Your task to perform on an android device: turn on airplane mode Image 0: 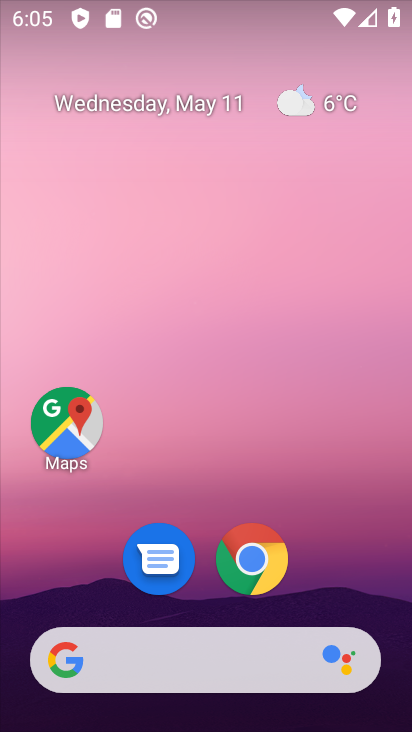
Step 0: drag from (335, 560) to (327, 105)
Your task to perform on an android device: turn on airplane mode Image 1: 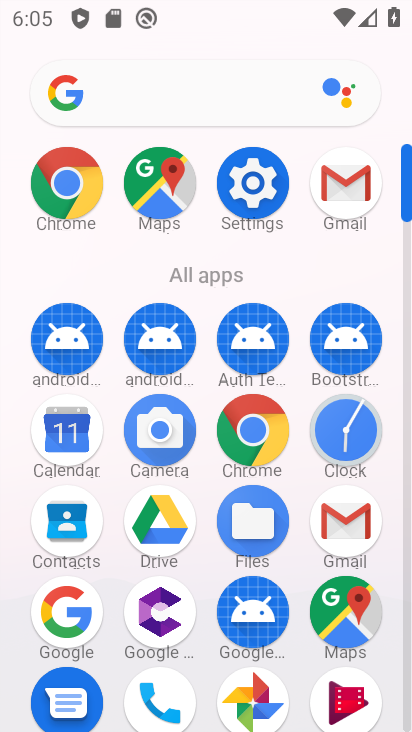
Step 1: drag from (347, 5) to (347, 519)
Your task to perform on an android device: turn on airplane mode Image 2: 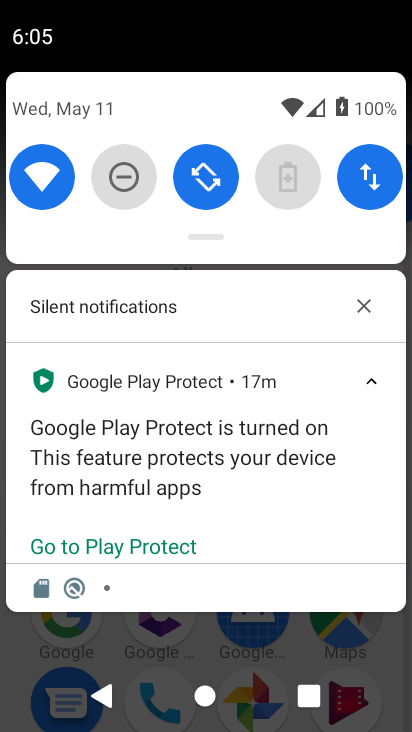
Step 2: drag from (198, 231) to (224, 522)
Your task to perform on an android device: turn on airplane mode Image 3: 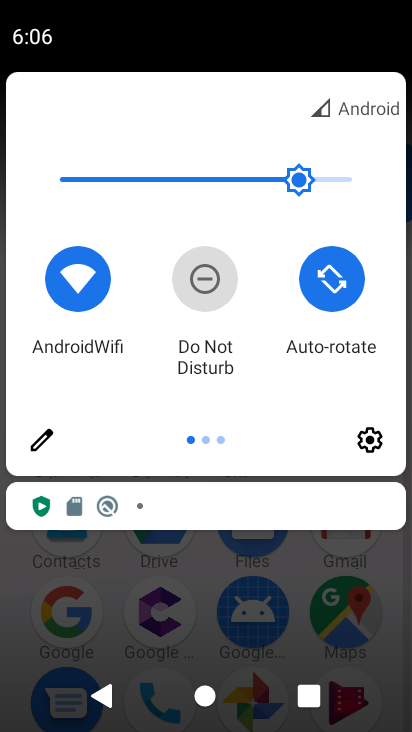
Step 3: drag from (376, 264) to (11, 345)
Your task to perform on an android device: turn on airplane mode Image 4: 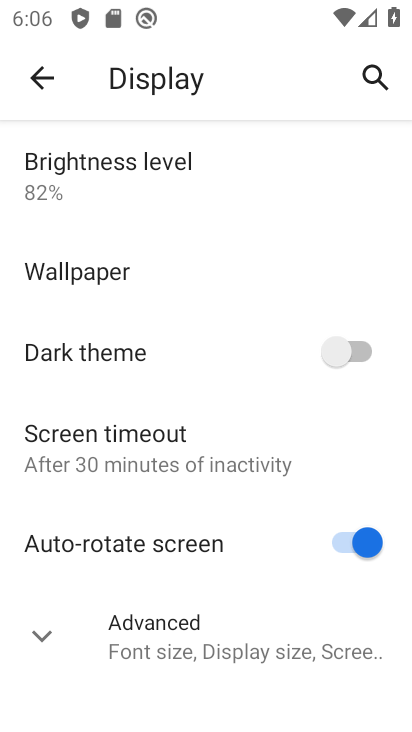
Step 4: press home button
Your task to perform on an android device: turn on airplane mode Image 5: 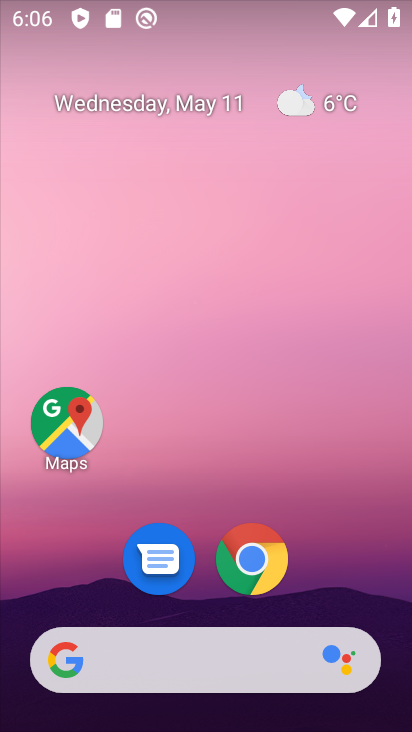
Step 5: drag from (245, 1) to (273, 731)
Your task to perform on an android device: turn on airplane mode Image 6: 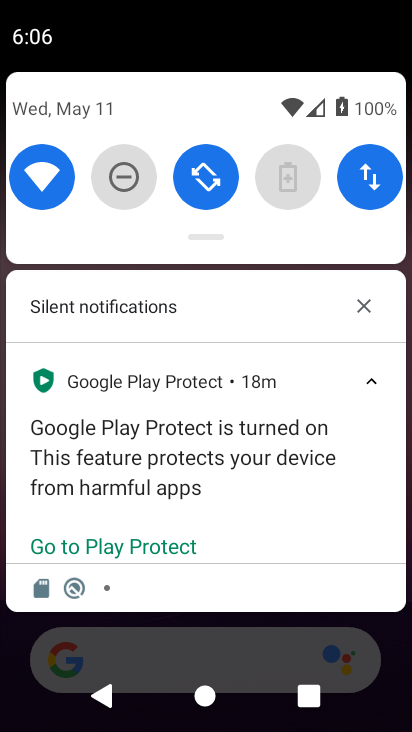
Step 6: drag from (202, 218) to (257, 729)
Your task to perform on an android device: turn on airplane mode Image 7: 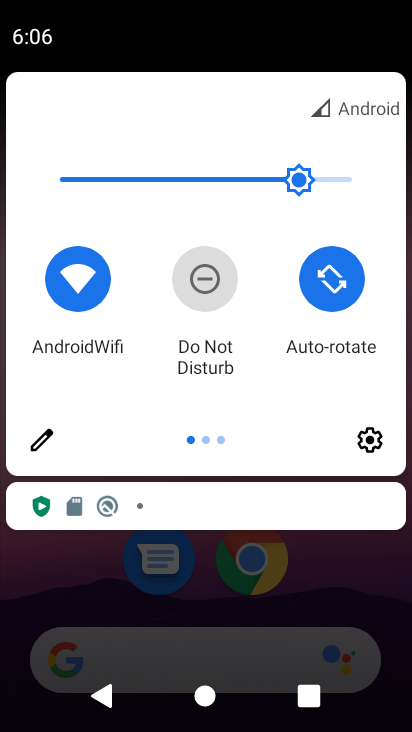
Step 7: drag from (371, 308) to (0, 326)
Your task to perform on an android device: turn on airplane mode Image 8: 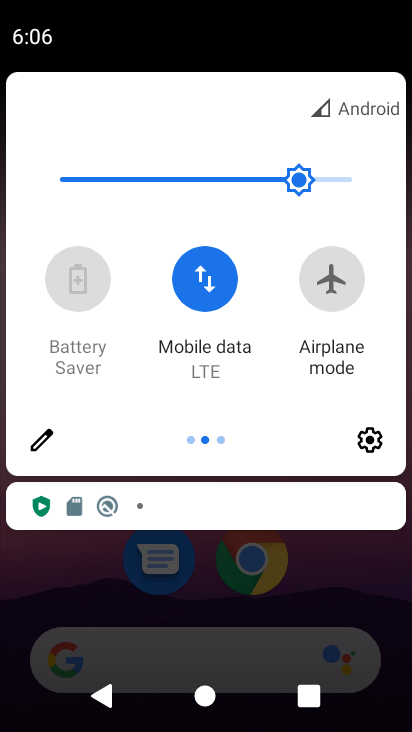
Step 8: click (329, 277)
Your task to perform on an android device: turn on airplane mode Image 9: 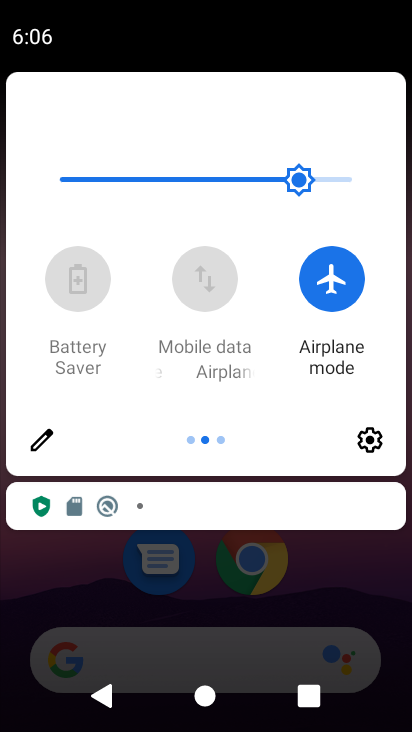
Step 9: task complete